Your task to perform on an android device: Go to privacy settings Image 0: 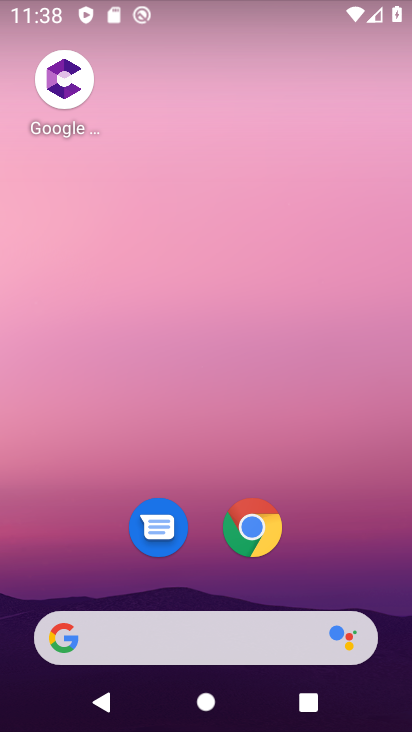
Step 0: click (246, 536)
Your task to perform on an android device: Go to privacy settings Image 1: 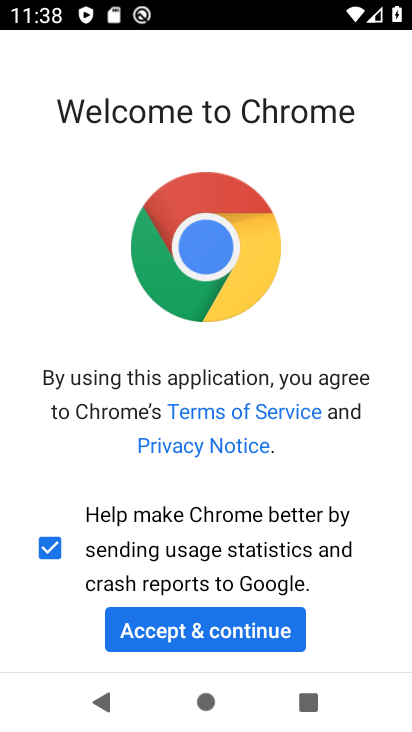
Step 1: click (267, 613)
Your task to perform on an android device: Go to privacy settings Image 2: 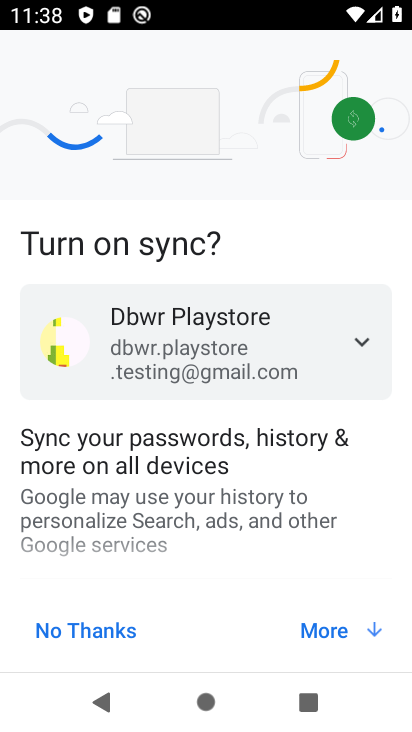
Step 2: click (356, 637)
Your task to perform on an android device: Go to privacy settings Image 3: 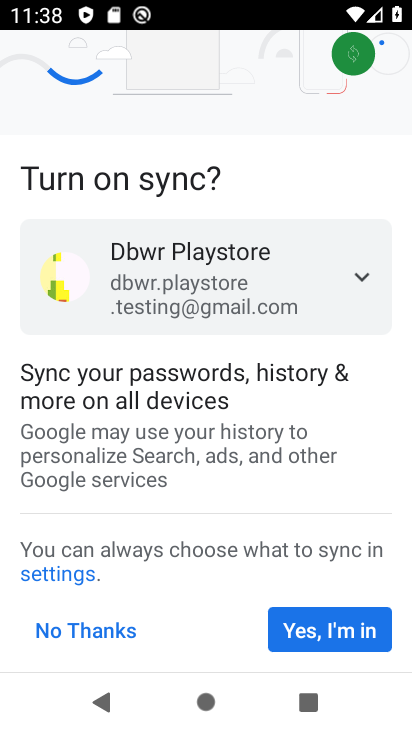
Step 3: click (356, 637)
Your task to perform on an android device: Go to privacy settings Image 4: 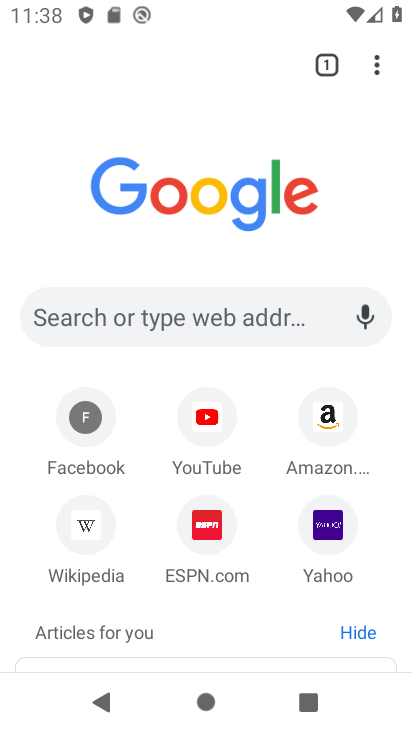
Step 4: drag from (376, 67) to (181, 532)
Your task to perform on an android device: Go to privacy settings Image 5: 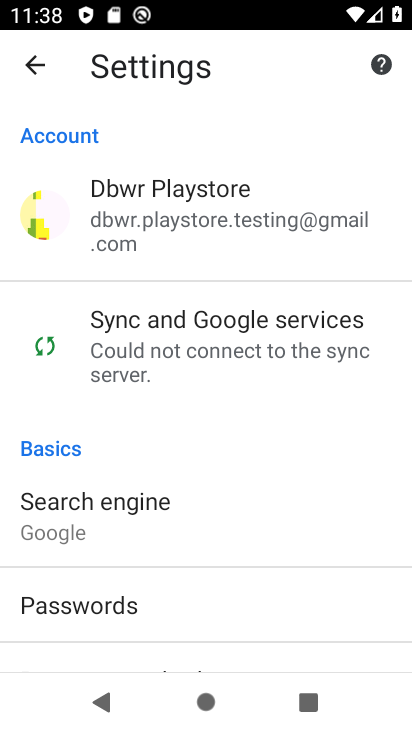
Step 5: drag from (193, 573) to (207, 257)
Your task to perform on an android device: Go to privacy settings Image 6: 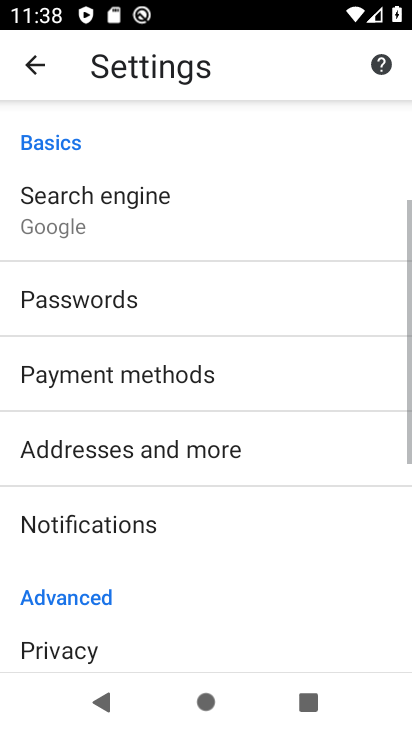
Step 6: drag from (147, 573) to (169, 359)
Your task to perform on an android device: Go to privacy settings Image 7: 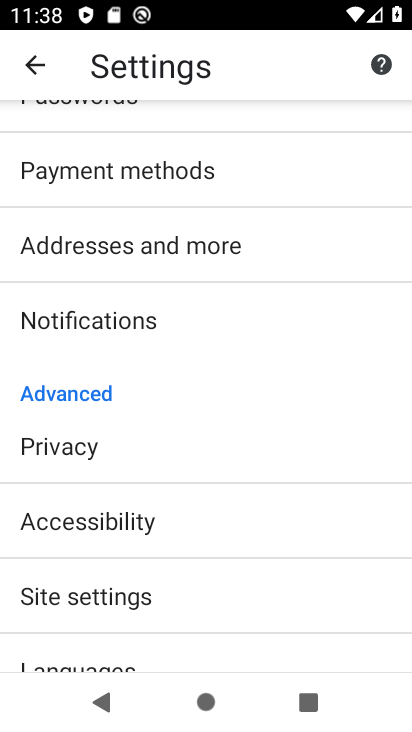
Step 7: click (74, 438)
Your task to perform on an android device: Go to privacy settings Image 8: 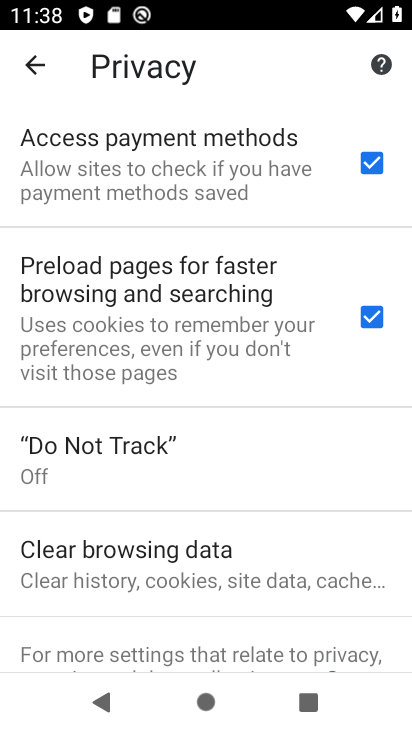
Step 8: task complete